Your task to perform on an android device: Open Google Chrome and click the shortcut for Amazon.com Image 0: 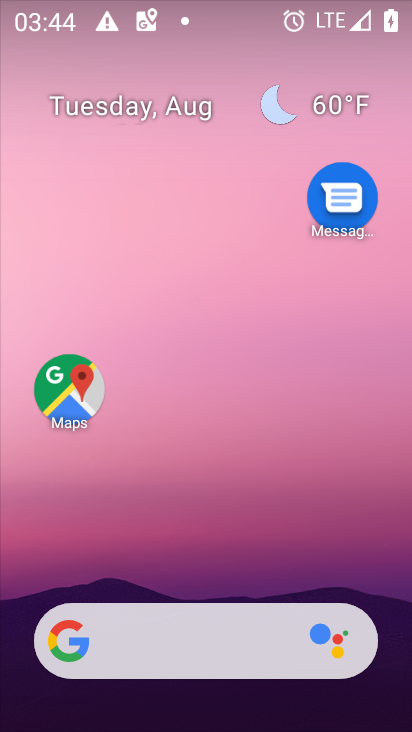
Step 0: drag from (253, 564) to (218, 108)
Your task to perform on an android device: Open Google Chrome and click the shortcut for Amazon.com Image 1: 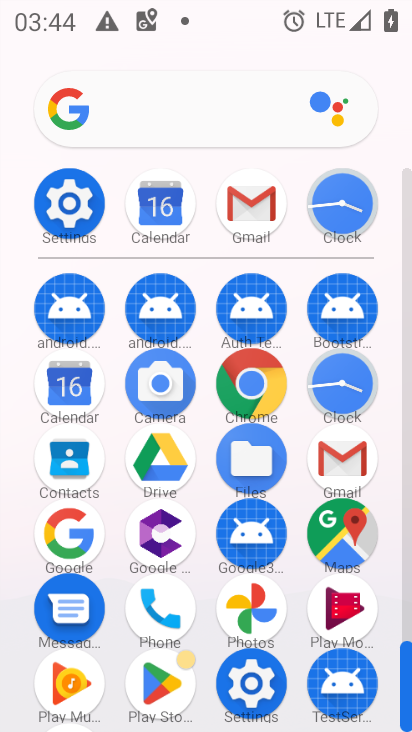
Step 1: click (255, 369)
Your task to perform on an android device: Open Google Chrome and click the shortcut for Amazon.com Image 2: 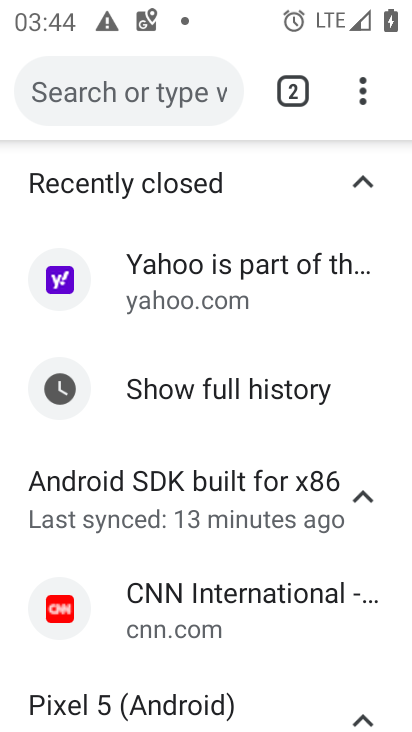
Step 2: click (371, 100)
Your task to perform on an android device: Open Google Chrome and click the shortcut for Amazon.com Image 3: 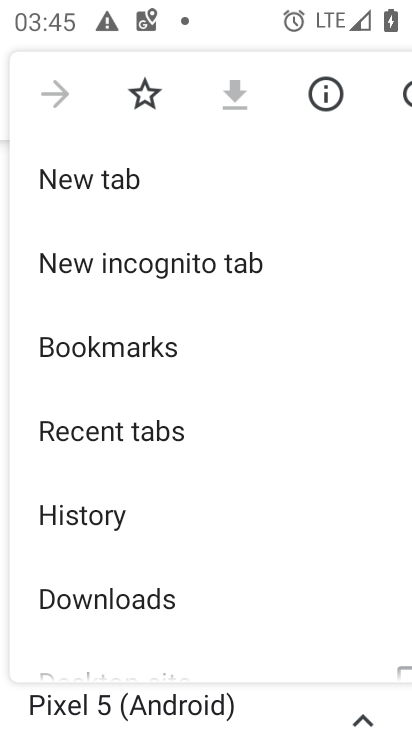
Step 3: click (215, 38)
Your task to perform on an android device: Open Google Chrome and click the shortcut for Amazon.com Image 4: 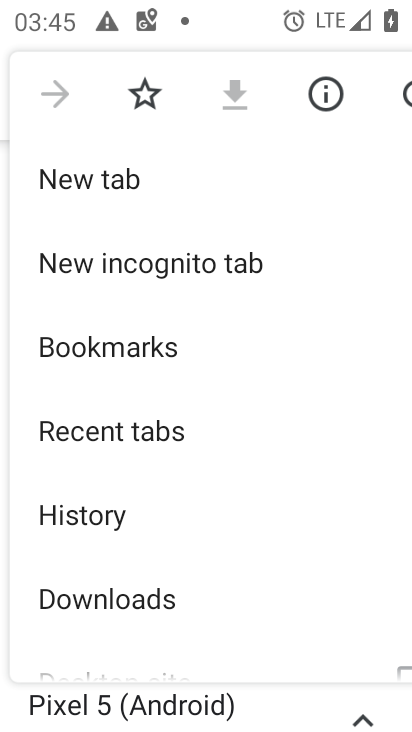
Step 4: press back button
Your task to perform on an android device: Open Google Chrome and click the shortcut for Amazon.com Image 5: 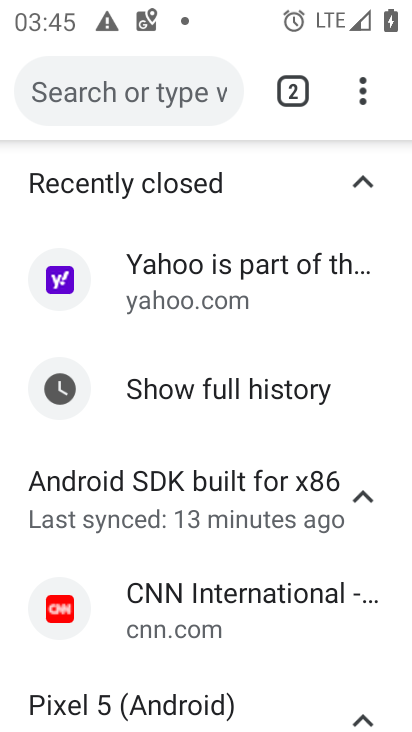
Step 5: press back button
Your task to perform on an android device: Open Google Chrome and click the shortcut for Amazon.com Image 6: 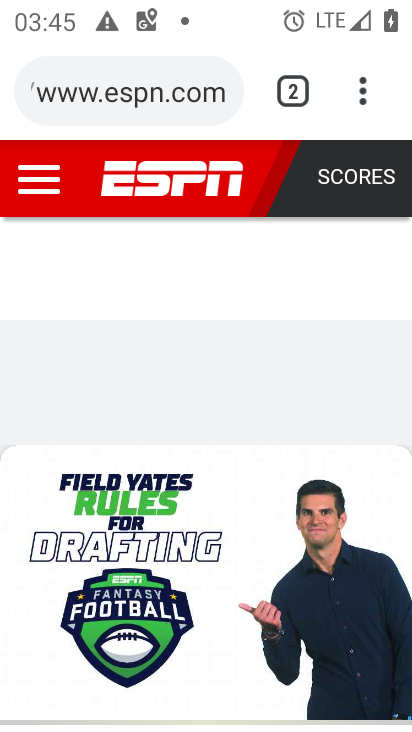
Step 6: click (283, 92)
Your task to perform on an android device: Open Google Chrome and click the shortcut for Amazon.com Image 7: 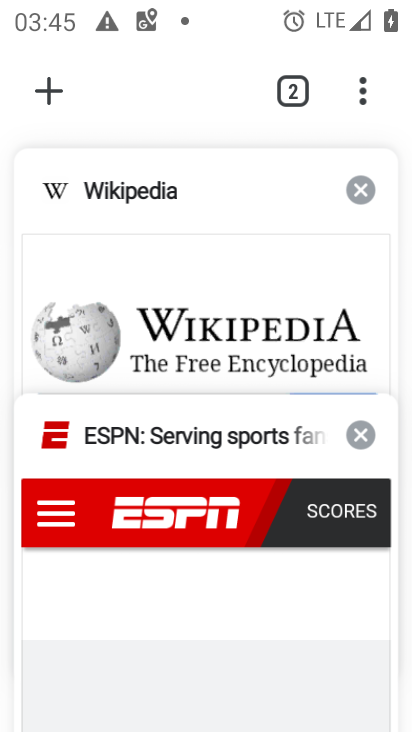
Step 7: click (56, 102)
Your task to perform on an android device: Open Google Chrome and click the shortcut for Amazon.com Image 8: 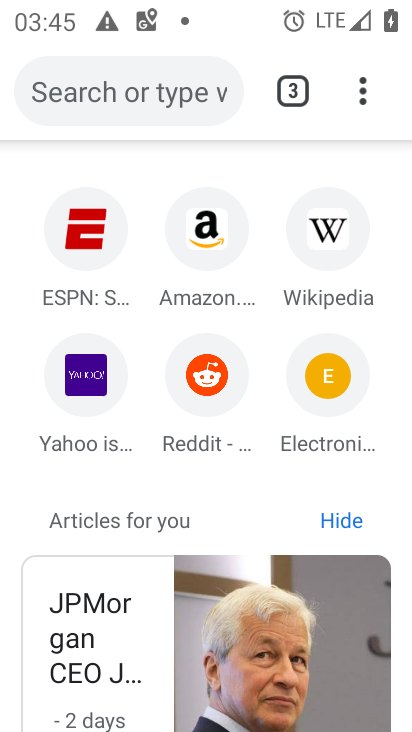
Step 8: click (168, 245)
Your task to perform on an android device: Open Google Chrome and click the shortcut for Amazon.com Image 9: 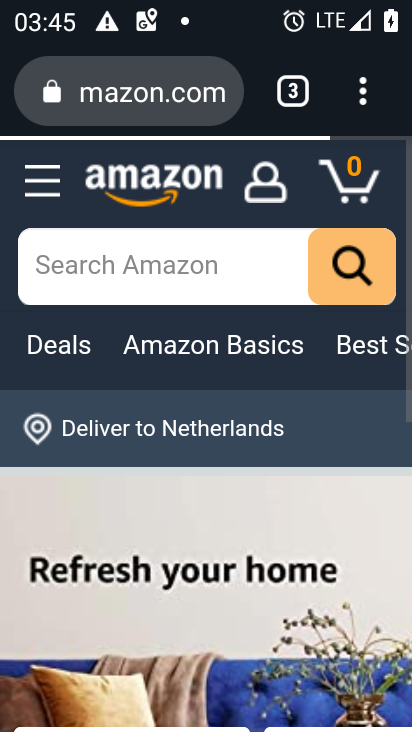
Step 9: task complete